Your task to perform on an android device: turn off location Image 0: 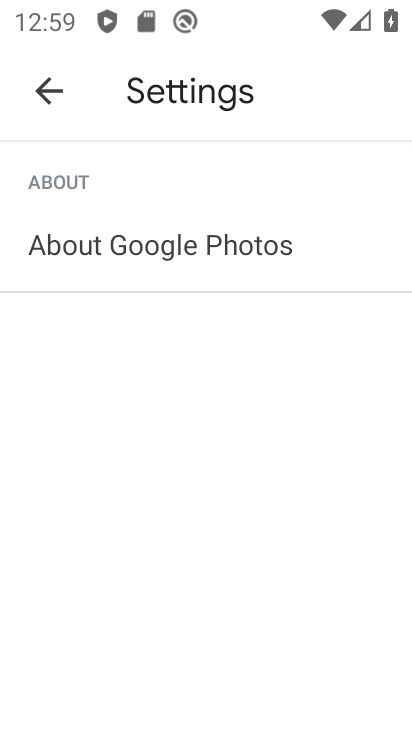
Step 0: click (218, 547)
Your task to perform on an android device: turn off location Image 1: 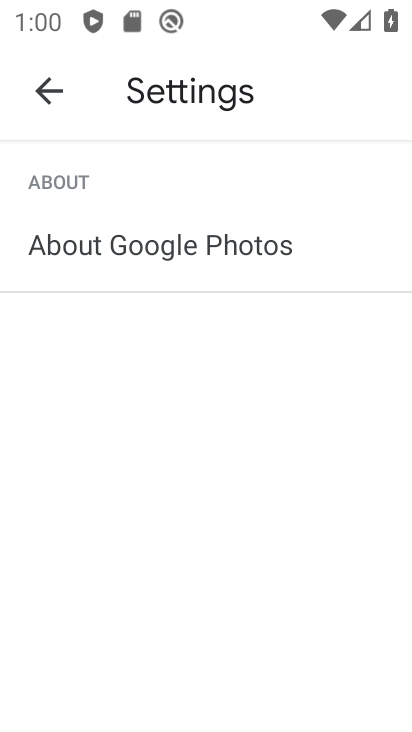
Step 1: click (248, 539)
Your task to perform on an android device: turn off location Image 2: 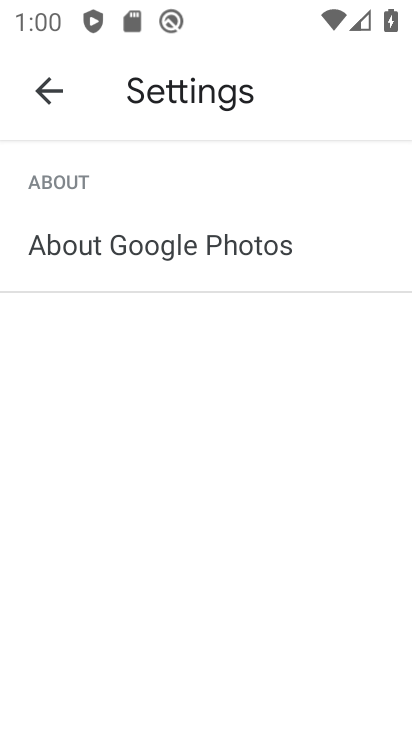
Step 2: press home button
Your task to perform on an android device: turn off location Image 3: 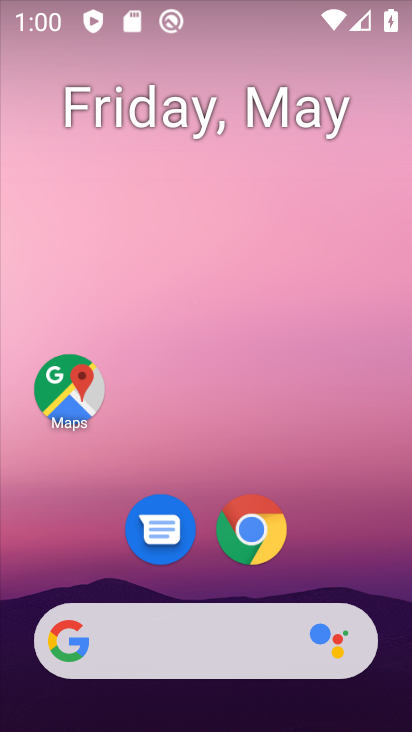
Step 3: drag from (186, 584) to (235, 48)
Your task to perform on an android device: turn off location Image 4: 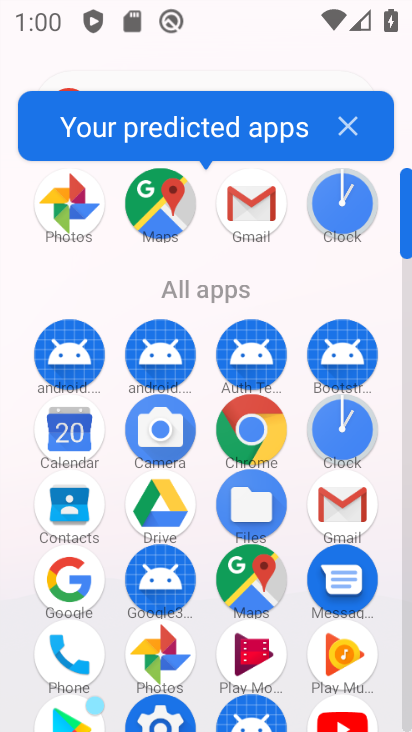
Step 4: click (146, 712)
Your task to perform on an android device: turn off location Image 5: 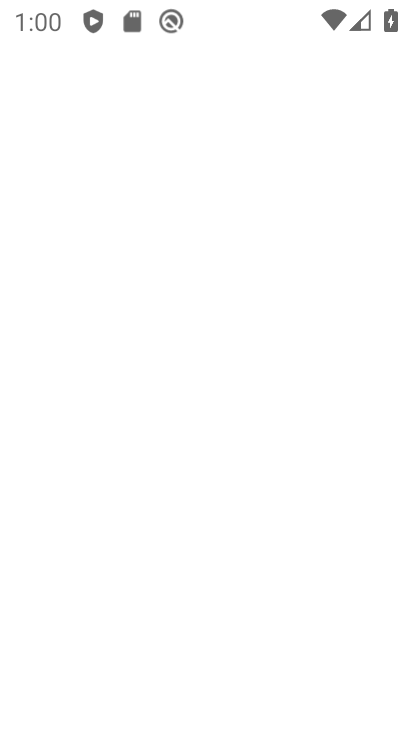
Step 5: drag from (289, 314) to (304, 140)
Your task to perform on an android device: turn off location Image 6: 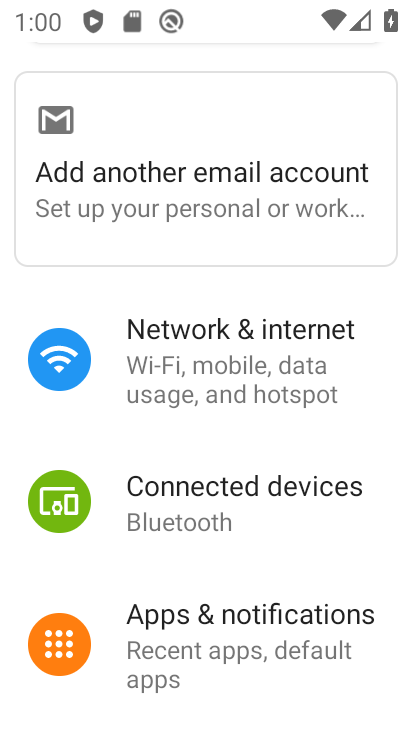
Step 6: drag from (185, 595) to (278, 66)
Your task to perform on an android device: turn off location Image 7: 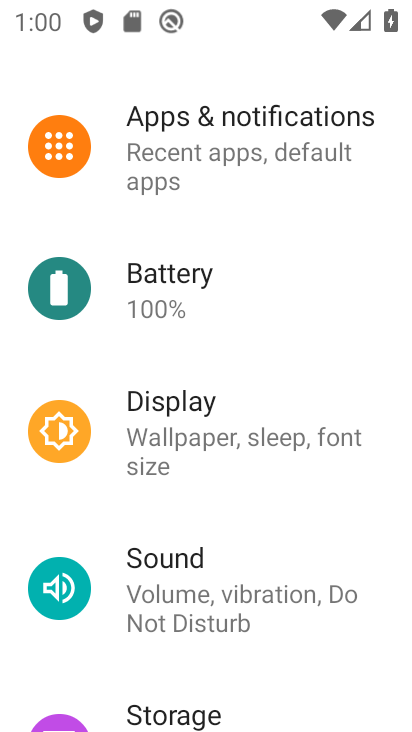
Step 7: drag from (213, 624) to (300, 108)
Your task to perform on an android device: turn off location Image 8: 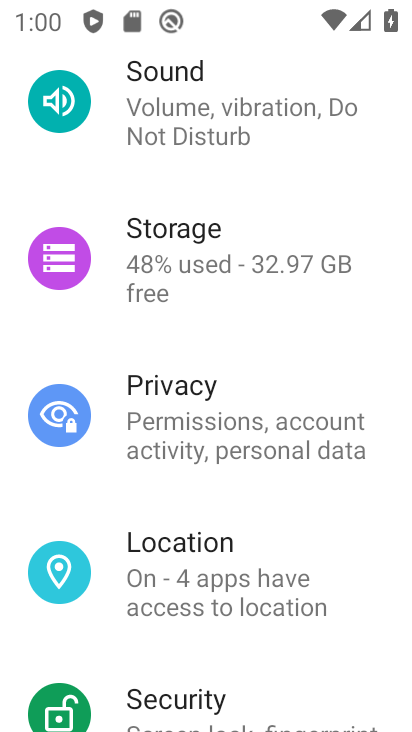
Step 8: click (202, 561)
Your task to perform on an android device: turn off location Image 9: 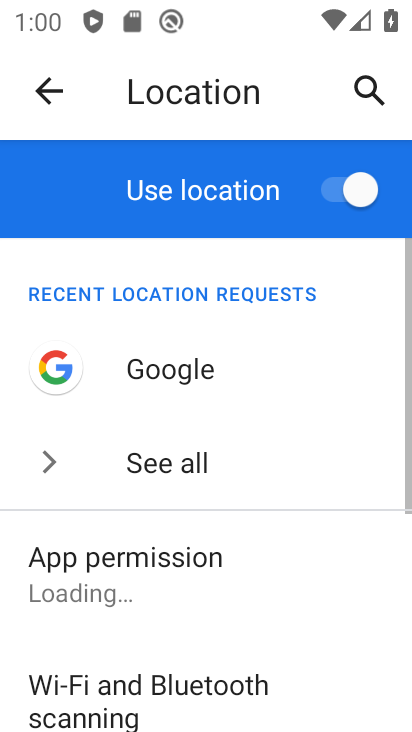
Step 9: drag from (186, 590) to (266, 110)
Your task to perform on an android device: turn off location Image 10: 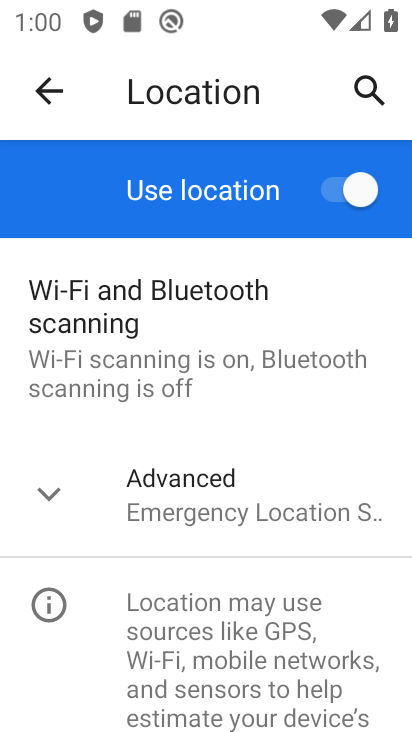
Step 10: click (157, 521)
Your task to perform on an android device: turn off location Image 11: 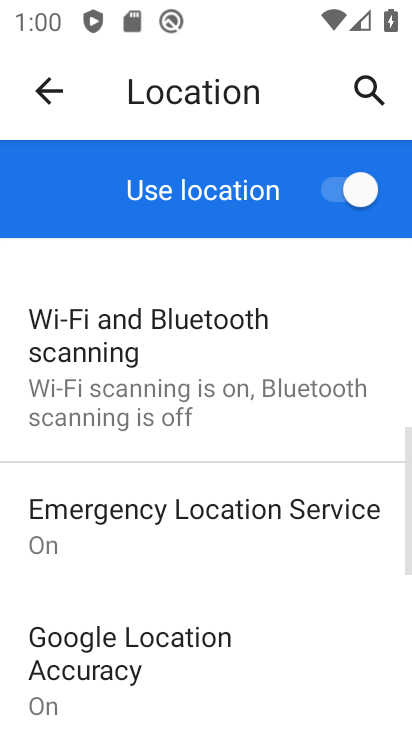
Step 11: click (356, 195)
Your task to perform on an android device: turn off location Image 12: 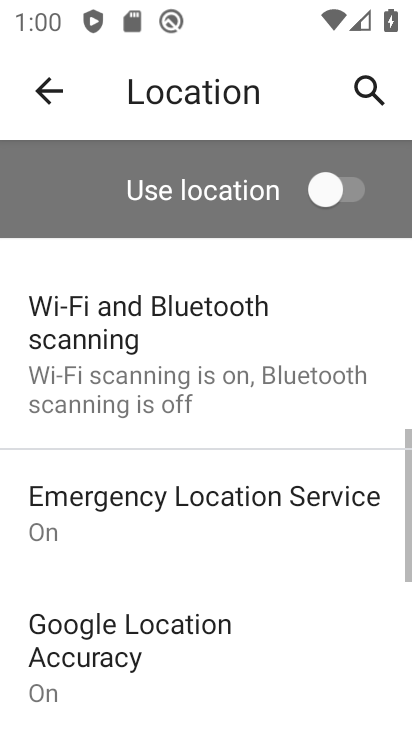
Step 12: task complete